Your task to perform on an android device: turn notification dots off Image 0: 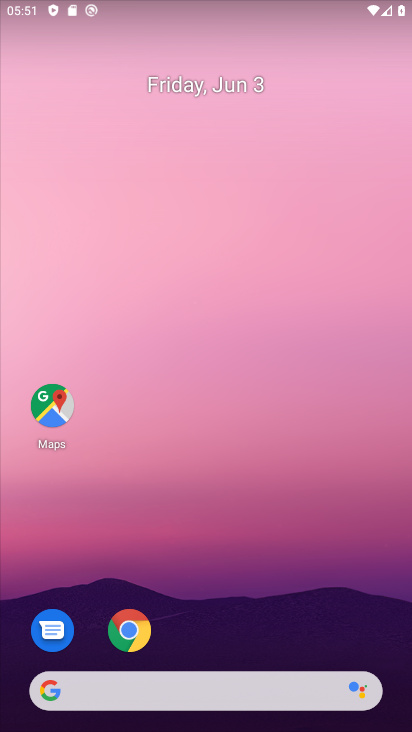
Step 0: drag from (220, 635) to (283, 21)
Your task to perform on an android device: turn notification dots off Image 1: 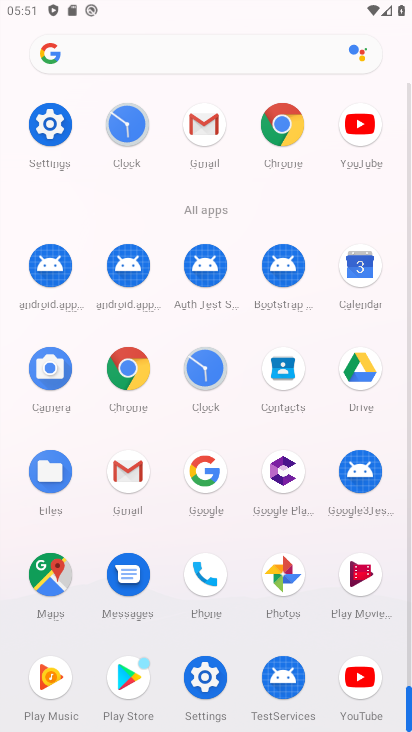
Step 1: click (47, 131)
Your task to perform on an android device: turn notification dots off Image 2: 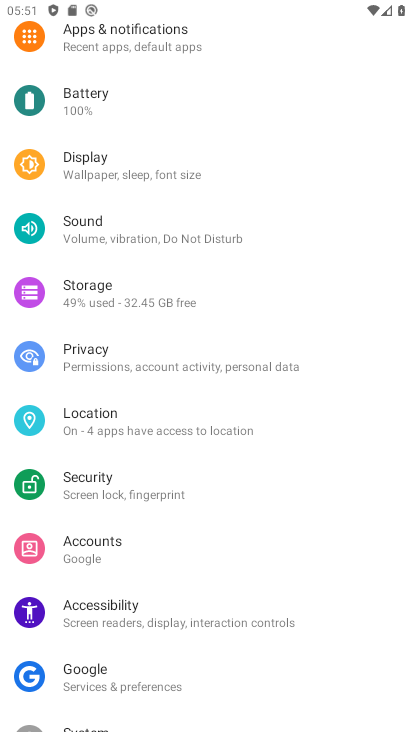
Step 2: click (128, 49)
Your task to perform on an android device: turn notification dots off Image 3: 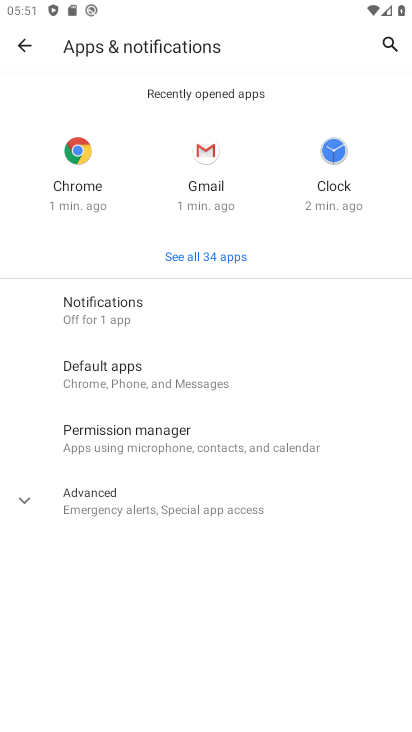
Step 3: click (123, 331)
Your task to perform on an android device: turn notification dots off Image 4: 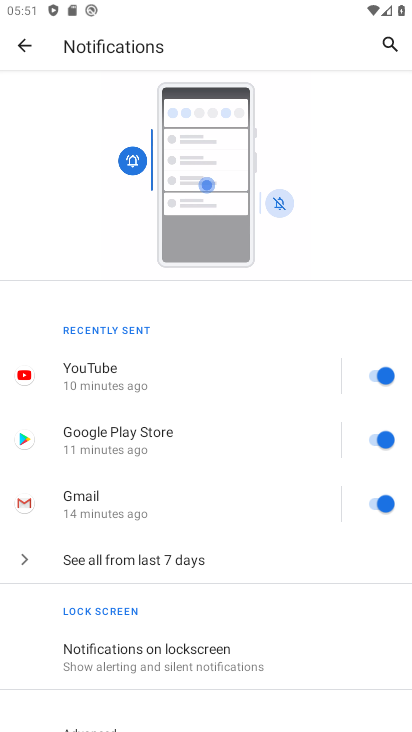
Step 4: click (187, 651)
Your task to perform on an android device: turn notification dots off Image 5: 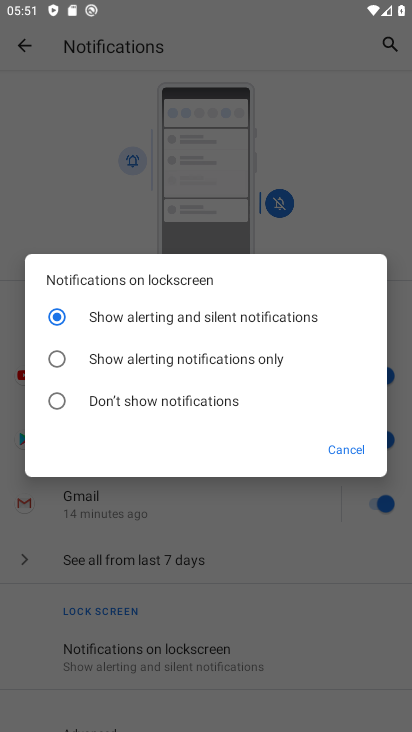
Step 5: click (351, 459)
Your task to perform on an android device: turn notification dots off Image 6: 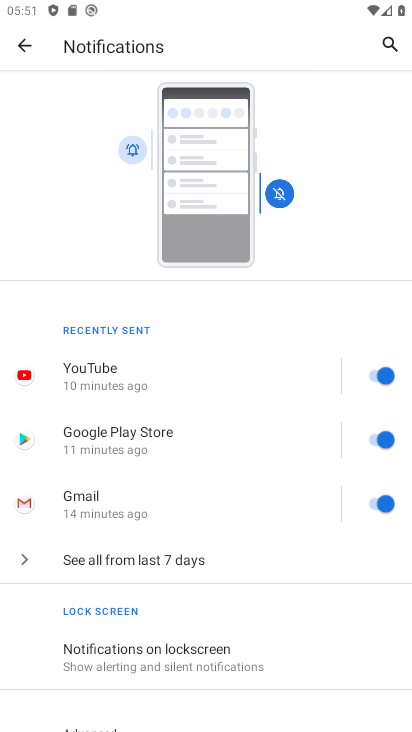
Step 6: drag from (252, 604) to (311, 129)
Your task to perform on an android device: turn notification dots off Image 7: 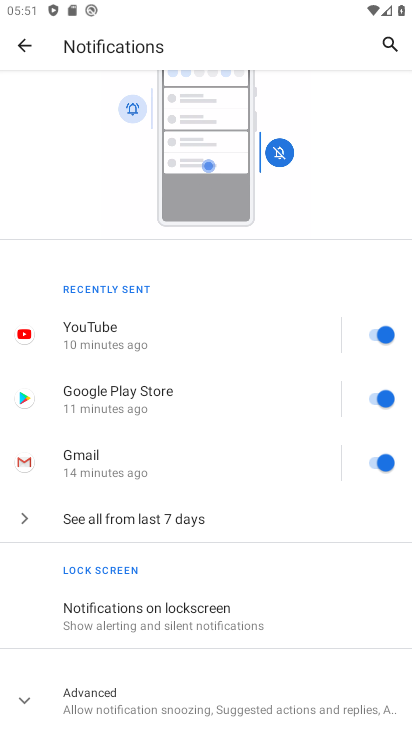
Step 7: click (302, 677)
Your task to perform on an android device: turn notification dots off Image 8: 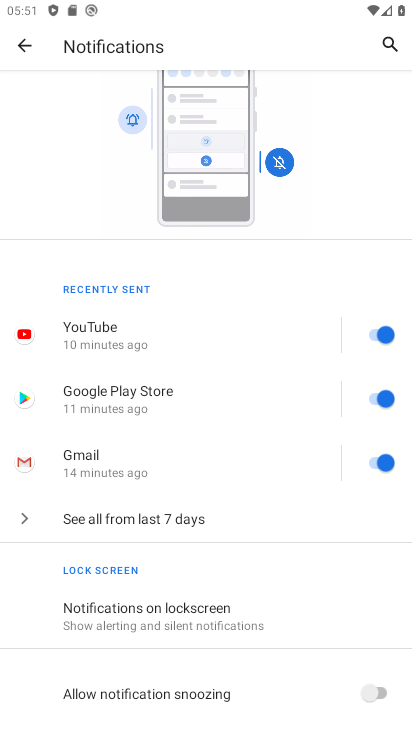
Step 8: drag from (187, 673) to (217, 209)
Your task to perform on an android device: turn notification dots off Image 9: 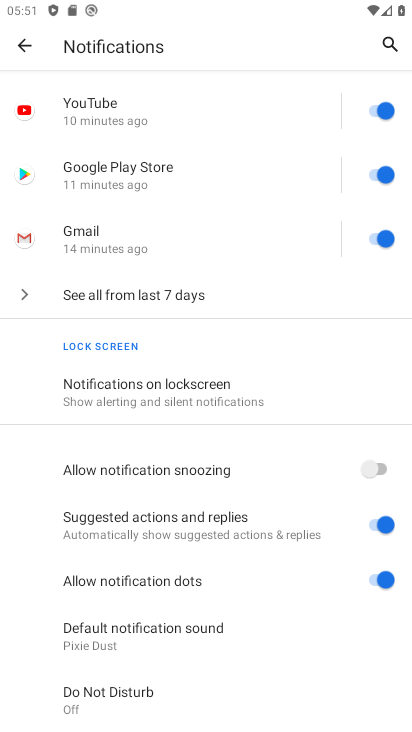
Step 9: click (392, 583)
Your task to perform on an android device: turn notification dots off Image 10: 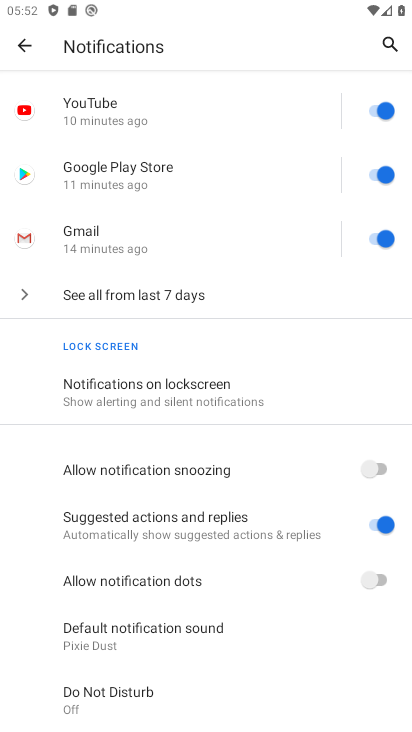
Step 10: task complete